Your task to perform on an android device: turn on notifications settings in the gmail app Image 0: 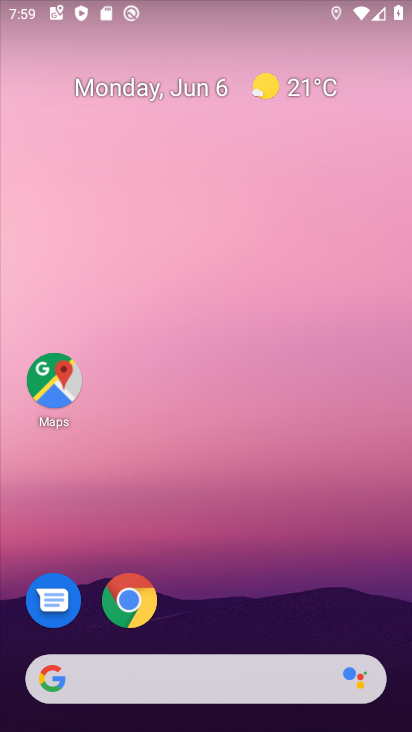
Step 0: drag from (387, 622) to (396, 115)
Your task to perform on an android device: turn on notifications settings in the gmail app Image 1: 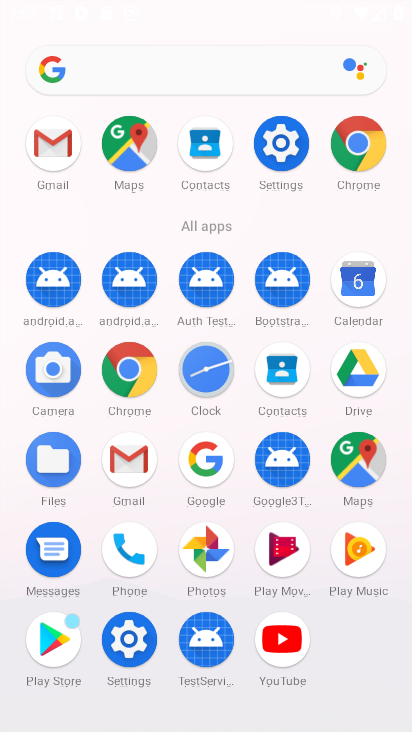
Step 1: click (128, 461)
Your task to perform on an android device: turn on notifications settings in the gmail app Image 2: 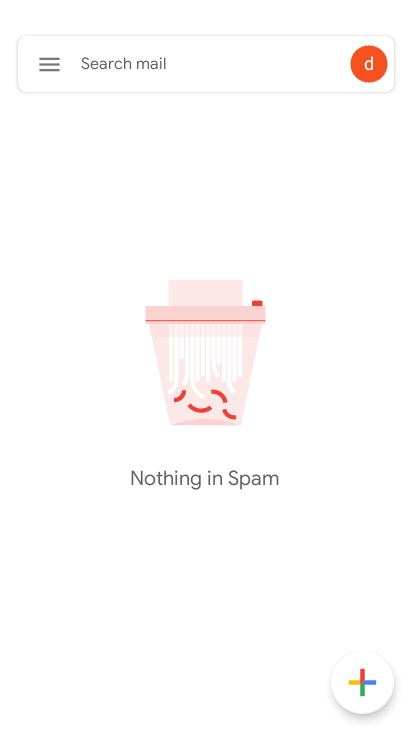
Step 2: click (46, 65)
Your task to perform on an android device: turn on notifications settings in the gmail app Image 3: 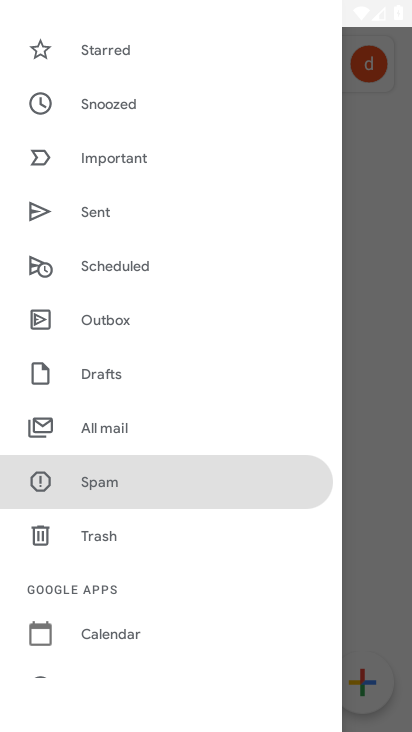
Step 3: drag from (157, 613) to (181, 285)
Your task to perform on an android device: turn on notifications settings in the gmail app Image 4: 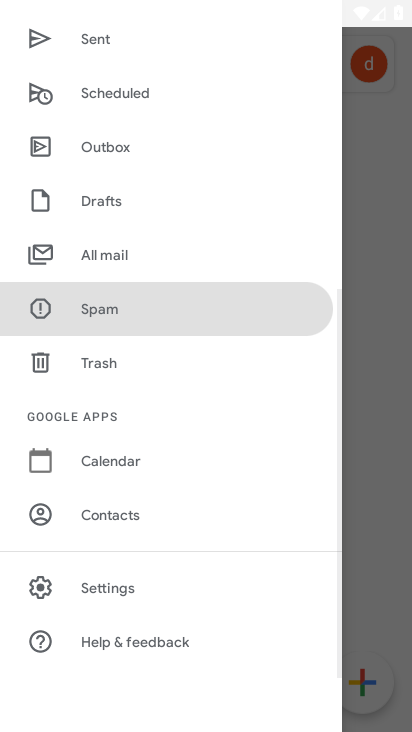
Step 4: click (117, 590)
Your task to perform on an android device: turn on notifications settings in the gmail app Image 5: 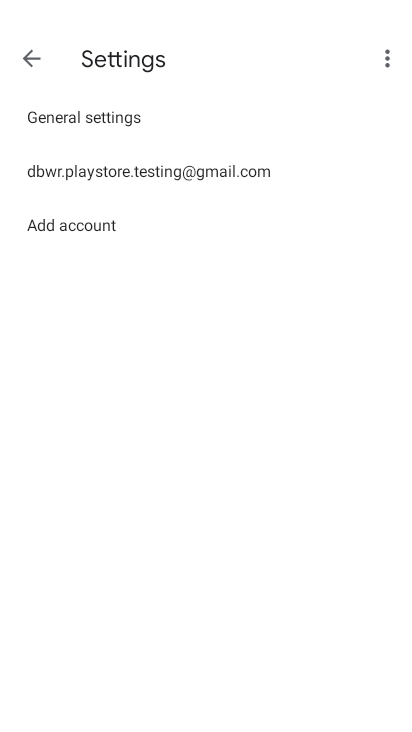
Step 5: click (129, 175)
Your task to perform on an android device: turn on notifications settings in the gmail app Image 6: 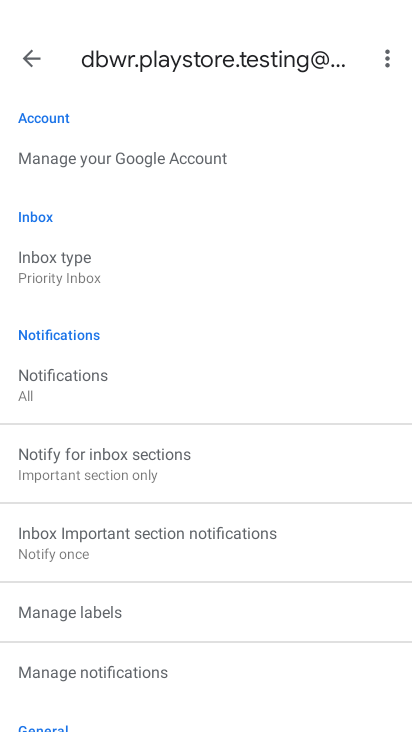
Step 6: drag from (252, 538) to (205, 231)
Your task to perform on an android device: turn on notifications settings in the gmail app Image 7: 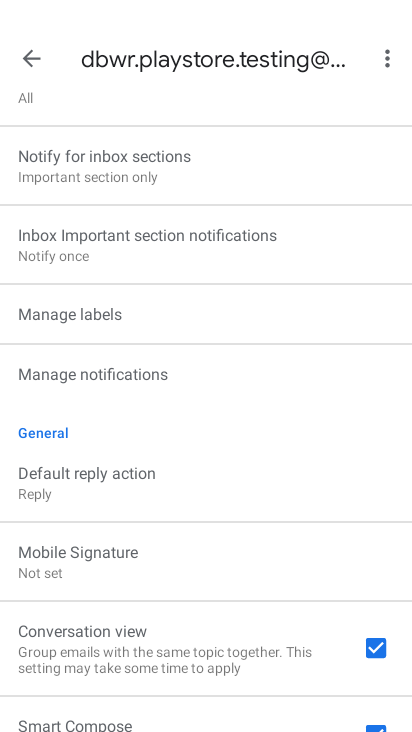
Step 7: click (86, 373)
Your task to perform on an android device: turn on notifications settings in the gmail app Image 8: 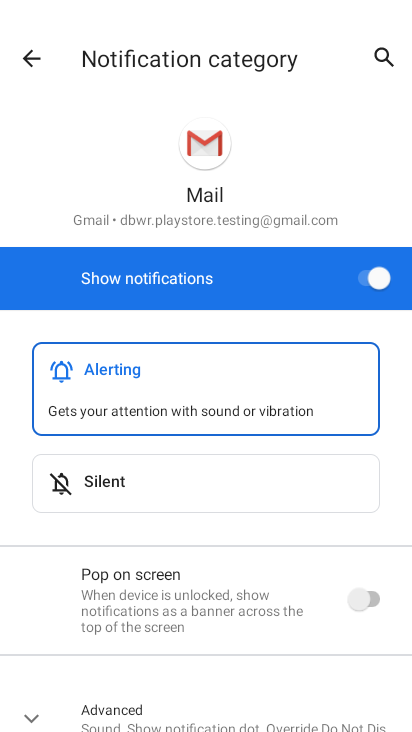
Step 8: task complete